Your task to perform on an android device: Go to Android settings Image 0: 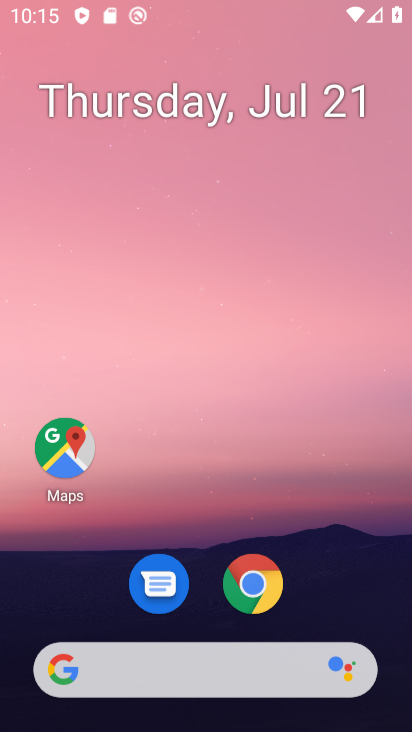
Step 0: press home button
Your task to perform on an android device: Go to Android settings Image 1: 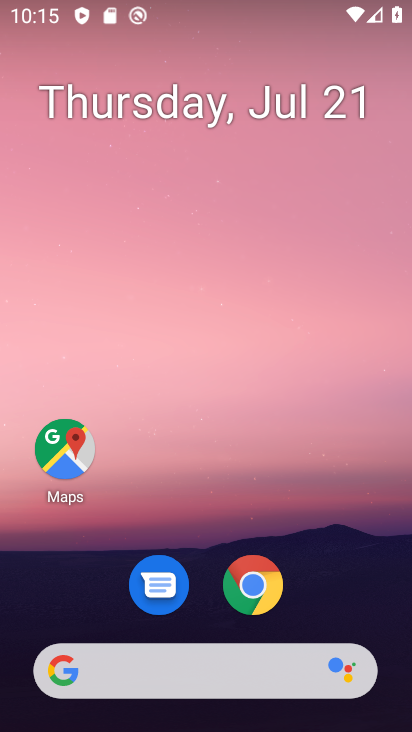
Step 1: drag from (216, 673) to (301, 50)
Your task to perform on an android device: Go to Android settings Image 2: 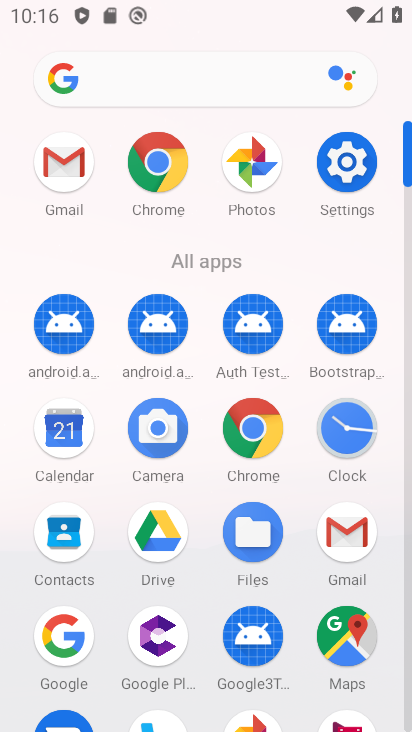
Step 2: click (344, 161)
Your task to perform on an android device: Go to Android settings Image 3: 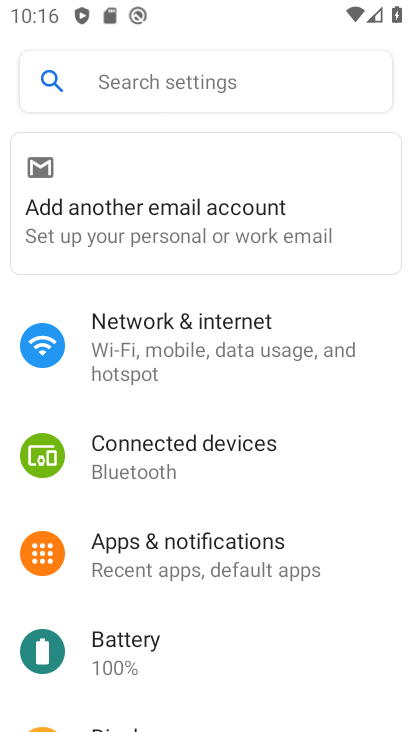
Step 3: task complete